Your task to perform on an android device: Is it going to rain today? Image 0: 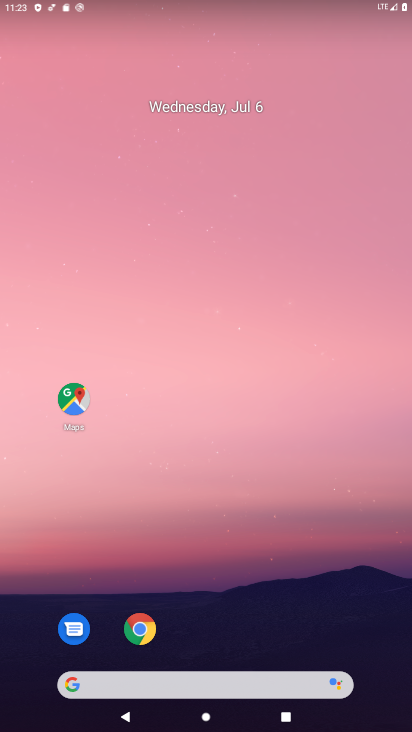
Step 0: drag from (208, 628) to (215, 178)
Your task to perform on an android device: Is it going to rain today? Image 1: 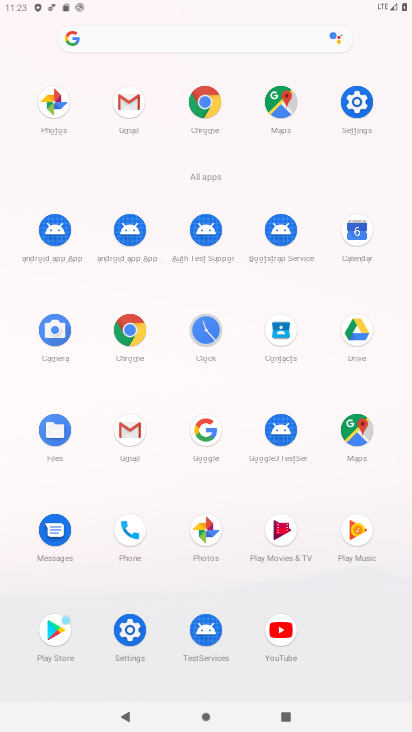
Step 1: click (203, 430)
Your task to perform on an android device: Is it going to rain today? Image 2: 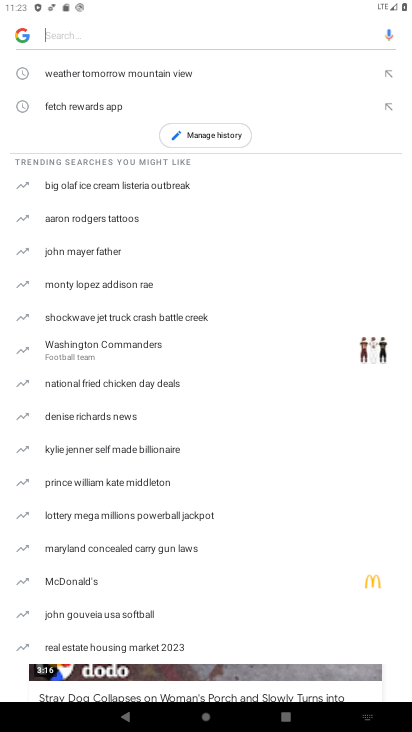
Step 2: type "weather"
Your task to perform on an android device: Is it going to rain today? Image 3: 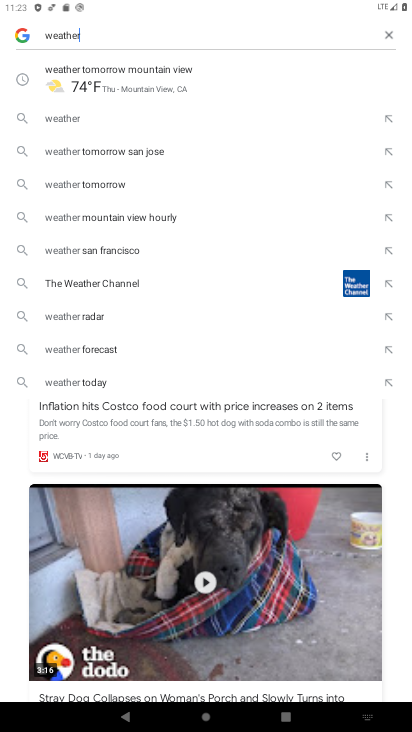
Step 3: click (199, 75)
Your task to perform on an android device: Is it going to rain today? Image 4: 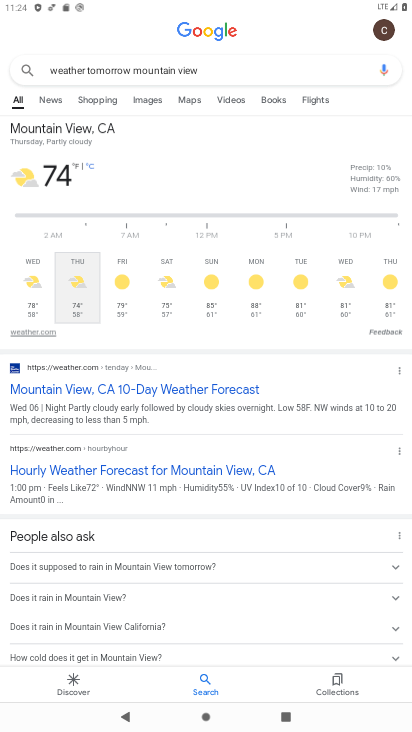
Step 4: task complete